Your task to perform on an android device: Go to Yahoo.com Image 0: 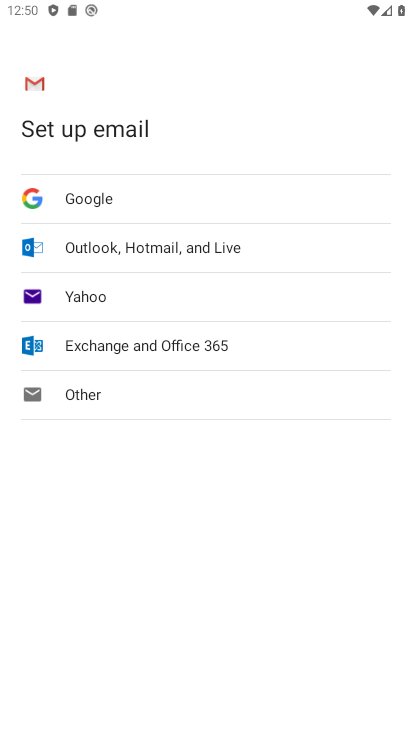
Step 0: press home button
Your task to perform on an android device: Go to Yahoo.com Image 1: 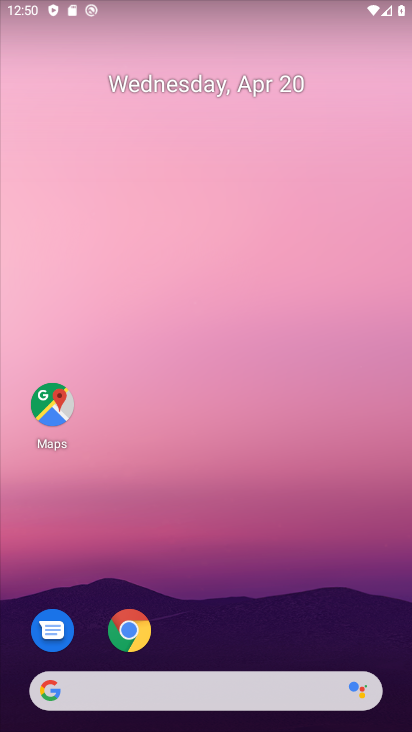
Step 1: drag from (390, 599) to (381, 159)
Your task to perform on an android device: Go to Yahoo.com Image 2: 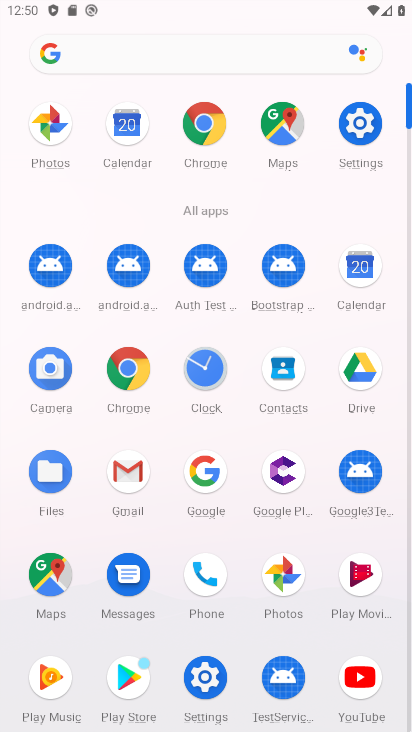
Step 2: click (136, 373)
Your task to perform on an android device: Go to Yahoo.com Image 3: 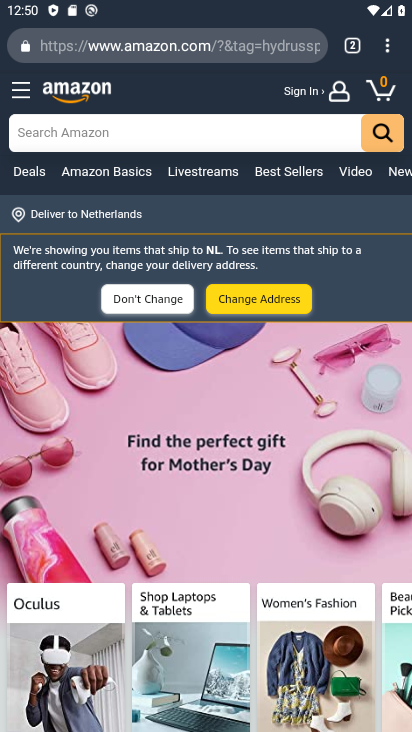
Step 3: click (349, 41)
Your task to perform on an android device: Go to Yahoo.com Image 4: 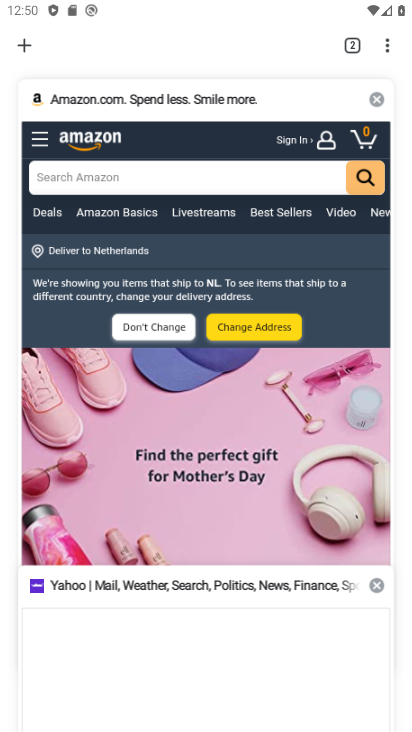
Step 4: click (23, 46)
Your task to perform on an android device: Go to Yahoo.com Image 5: 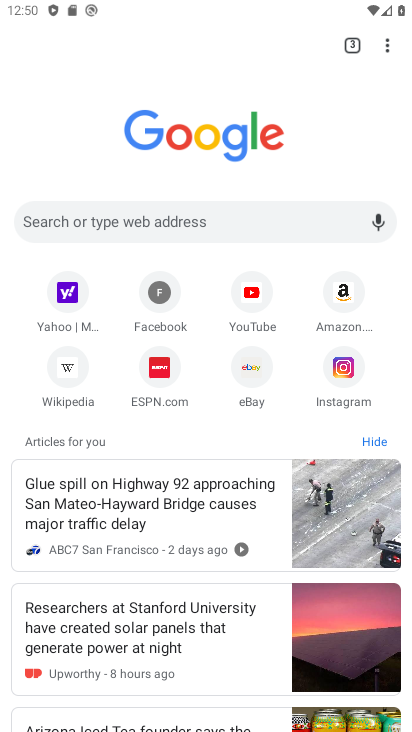
Step 5: click (69, 292)
Your task to perform on an android device: Go to Yahoo.com Image 6: 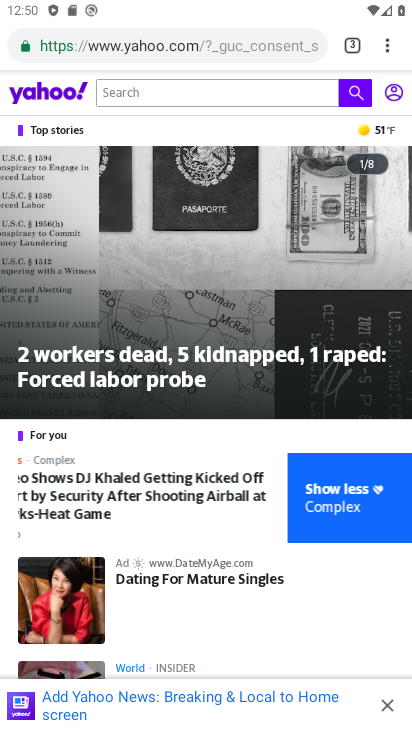
Step 6: task complete